Your task to perform on an android device: turn off smart reply in the gmail app Image 0: 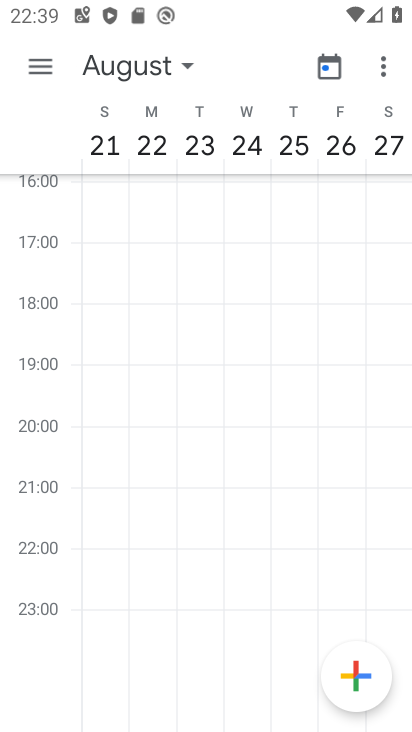
Step 0: press home button
Your task to perform on an android device: turn off smart reply in the gmail app Image 1: 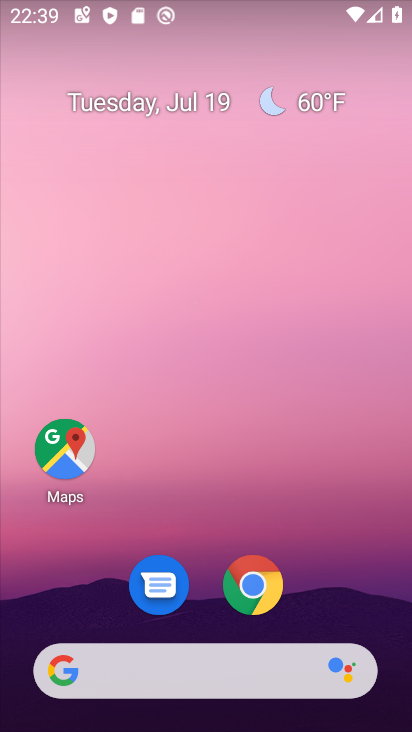
Step 1: drag from (214, 511) to (249, 77)
Your task to perform on an android device: turn off smart reply in the gmail app Image 2: 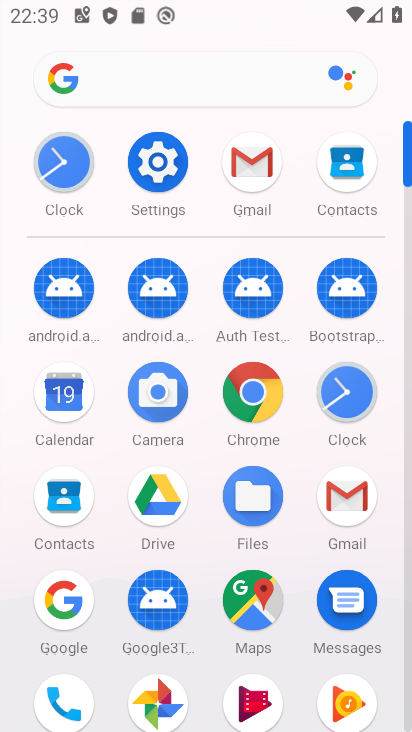
Step 2: click (253, 183)
Your task to perform on an android device: turn off smart reply in the gmail app Image 3: 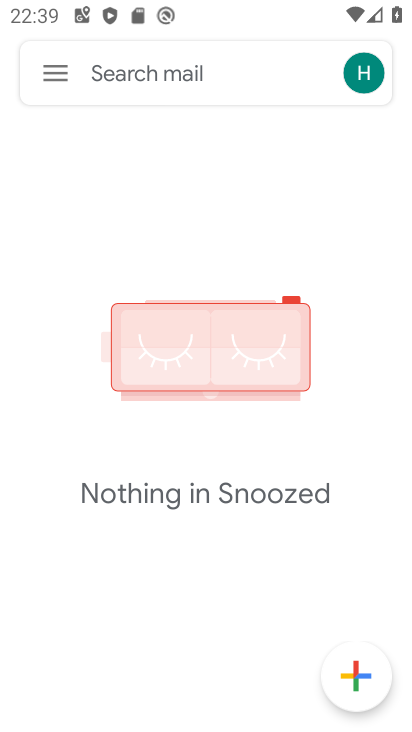
Step 3: click (60, 66)
Your task to perform on an android device: turn off smart reply in the gmail app Image 4: 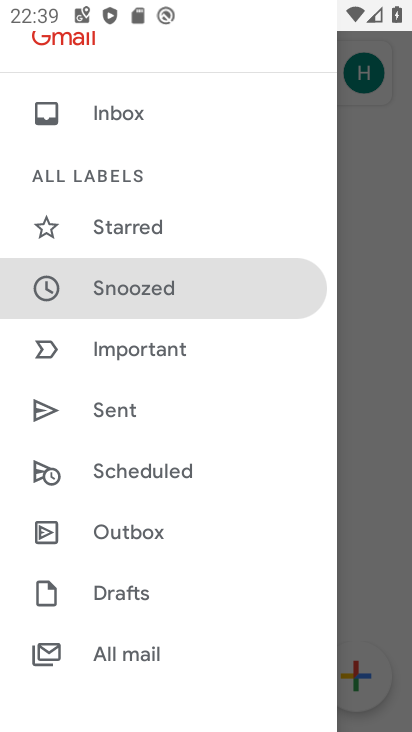
Step 4: drag from (172, 599) to (190, 326)
Your task to perform on an android device: turn off smart reply in the gmail app Image 5: 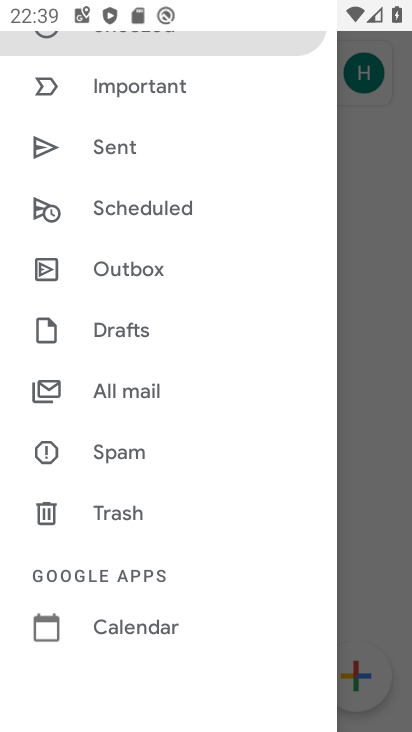
Step 5: drag from (204, 513) to (244, 159)
Your task to perform on an android device: turn off smart reply in the gmail app Image 6: 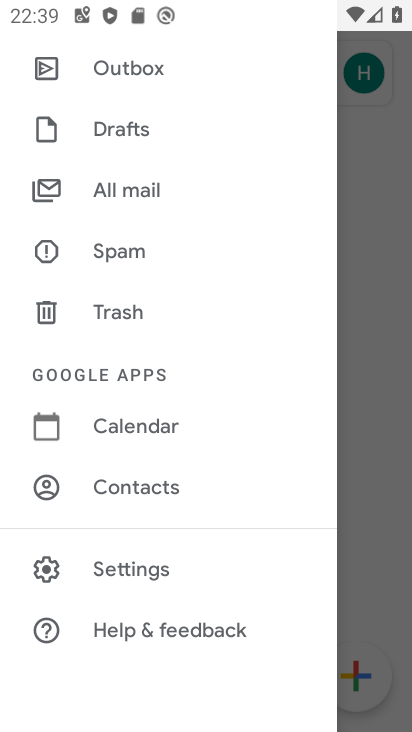
Step 6: click (162, 562)
Your task to perform on an android device: turn off smart reply in the gmail app Image 7: 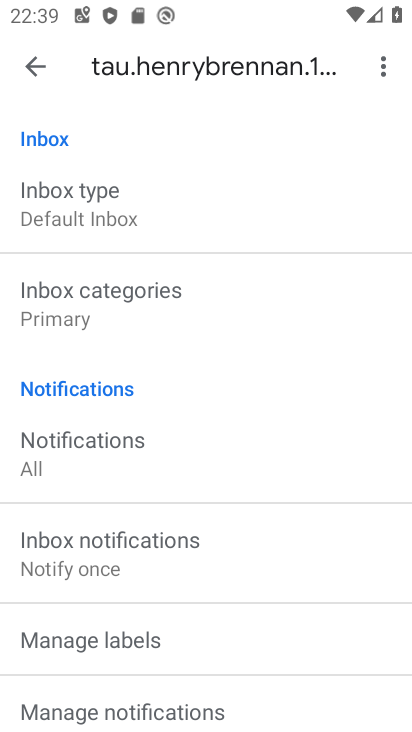
Step 7: task complete